Your task to perform on an android device: Open Google Maps Image 0: 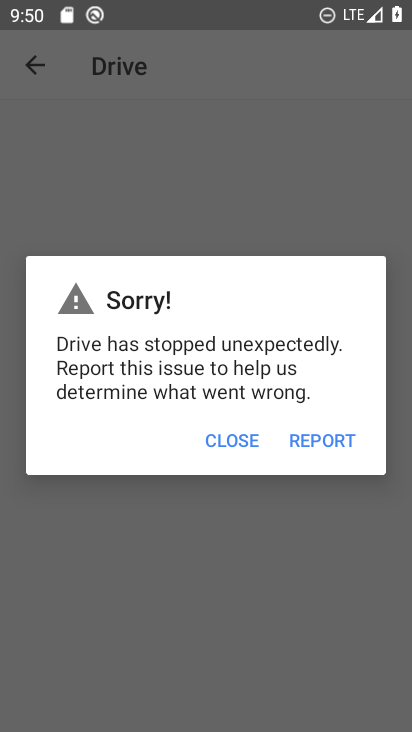
Step 0: press home button
Your task to perform on an android device: Open Google Maps Image 1: 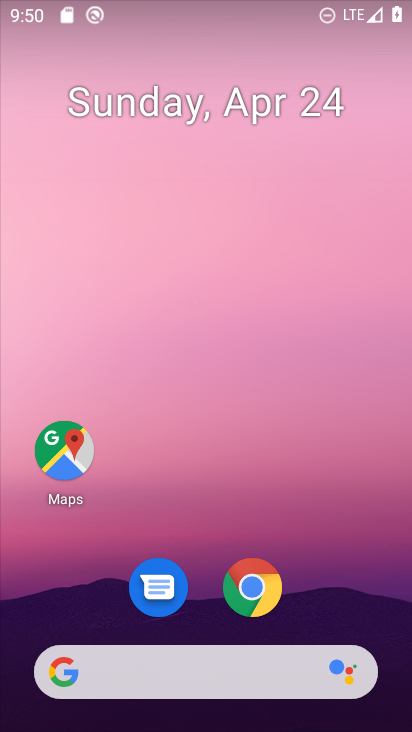
Step 1: drag from (379, 571) to (361, 107)
Your task to perform on an android device: Open Google Maps Image 2: 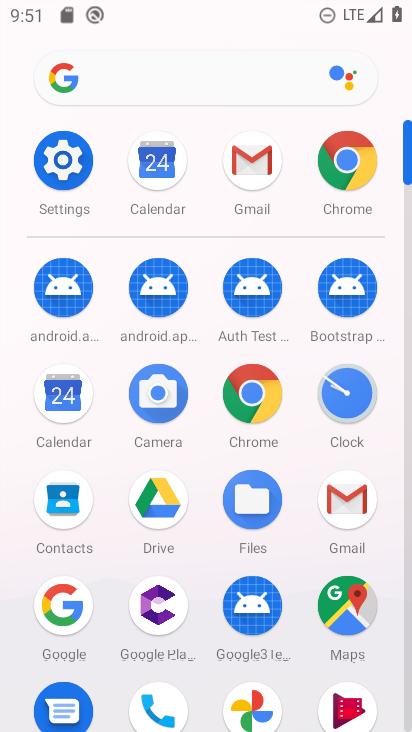
Step 2: click (361, 614)
Your task to perform on an android device: Open Google Maps Image 3: 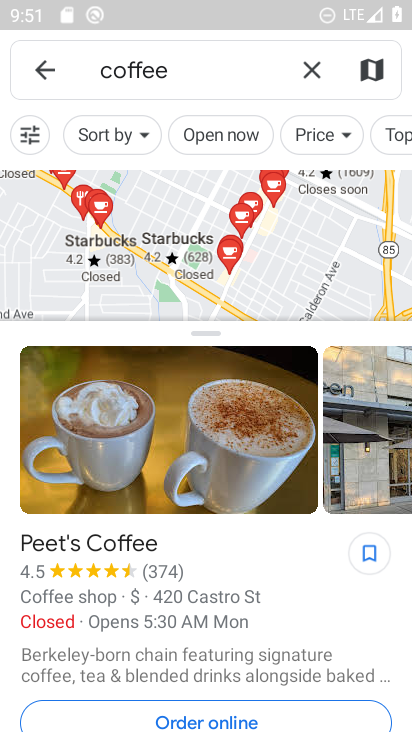
Step 3: click (315, 72)
Your task to perform on an android device: Open Google Maps Image 4: 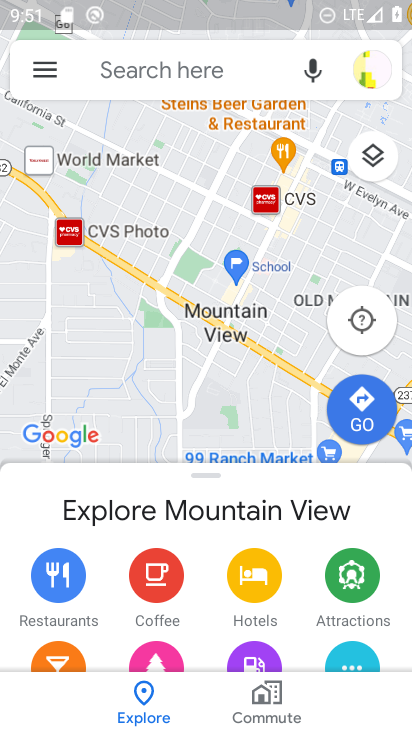
Step 4: task complete